Your task to perform on an android device: Go to battery settings Image 0: 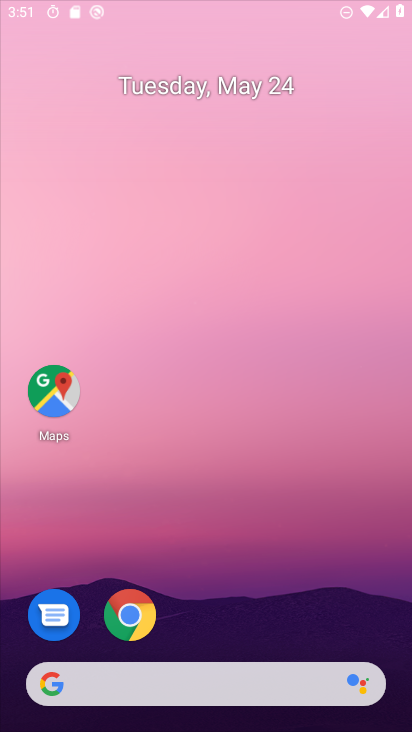
Step 0: click (296, 19)
Your task to perform on an android device: Go to battery settings Image 1: 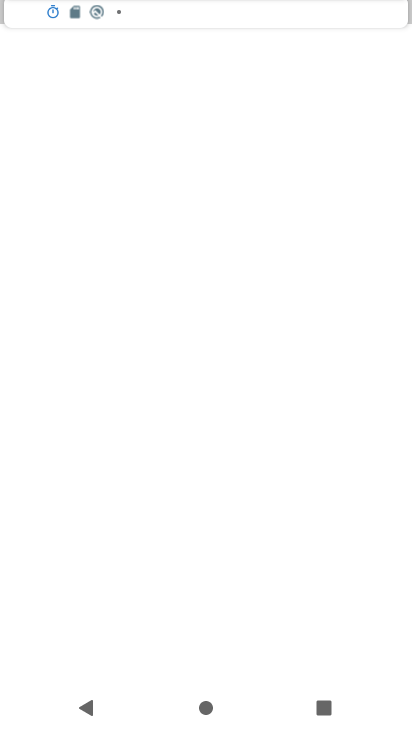
Step 1: drag from (193, 560) to (239, 132)
Your task to perform on an android device: Go to battery settings Image 2: 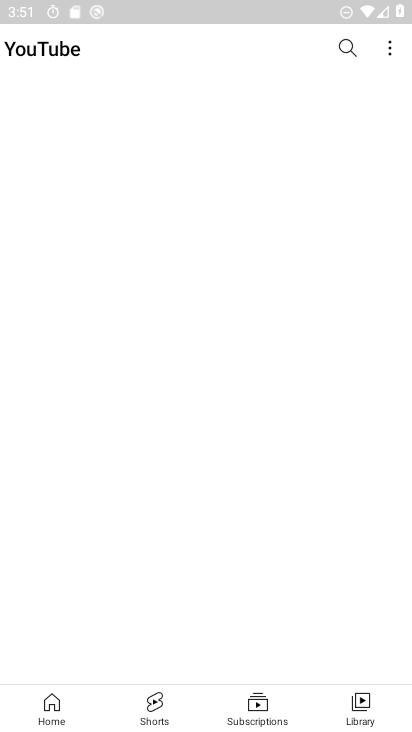
Step 2: press home button
Your task to perform on an android device: Go to battery settings Image 3: 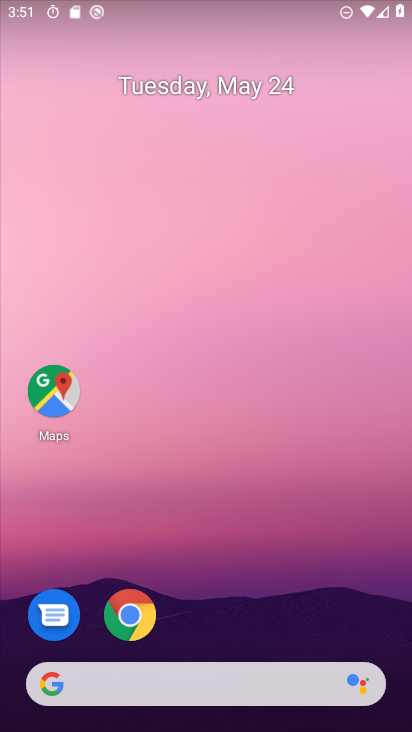
Step 3: drag from (246, 639) to (323, 151)
Your task to perform on an android device: Go to battery settings Image 4: 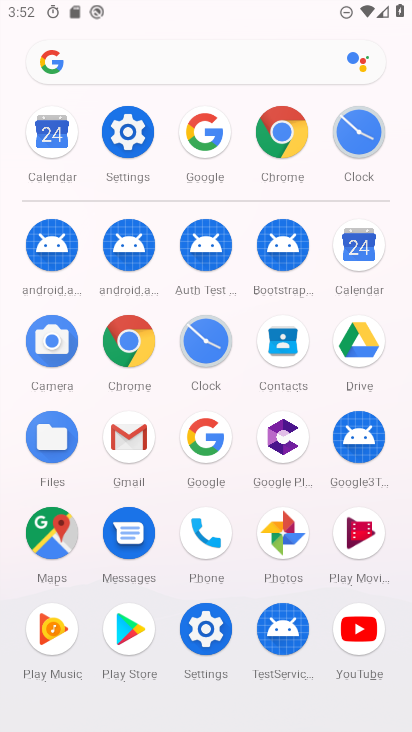
Step 4: click (128, 135)
Your task to perform on an android device: Go to battery settings Image 5: 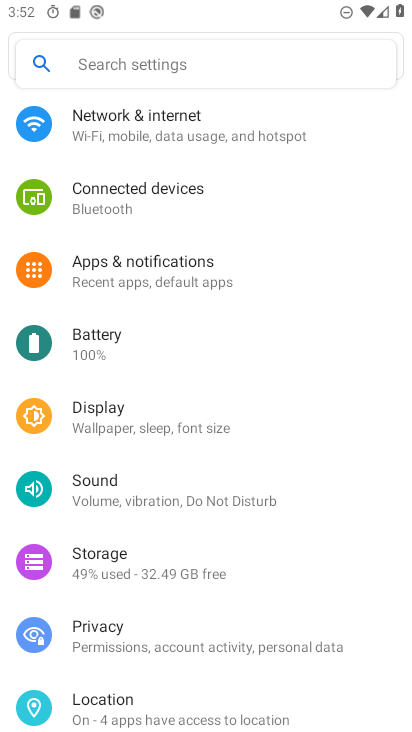
Step 5: click (154, 345)
Your task to perform on an android device: Go to battery settings Image 6: 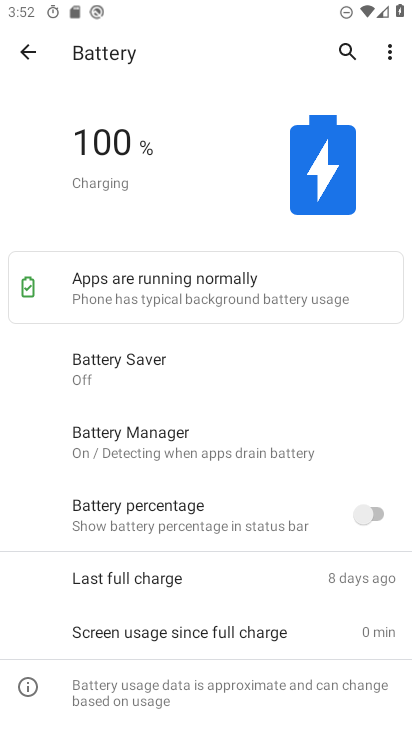
Step 6: task complete